Your task to perform on an android device: turn off smart reply in the gmail app Image 0: 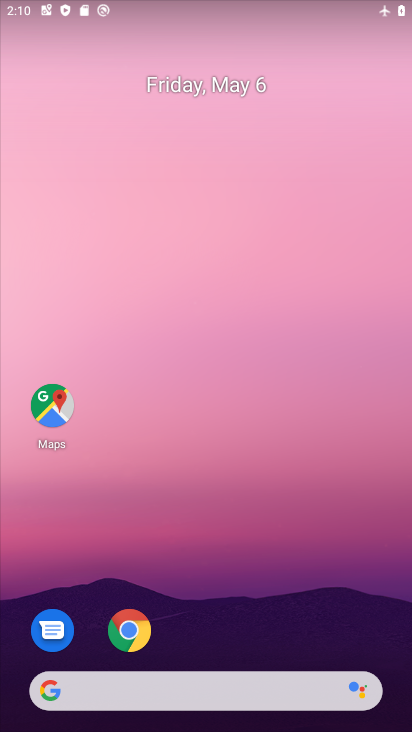
Step 0: drag from (224, 675) to (214, 83)
Your task to perform on an android device: turn off smart reply in the gmail app Image 1: 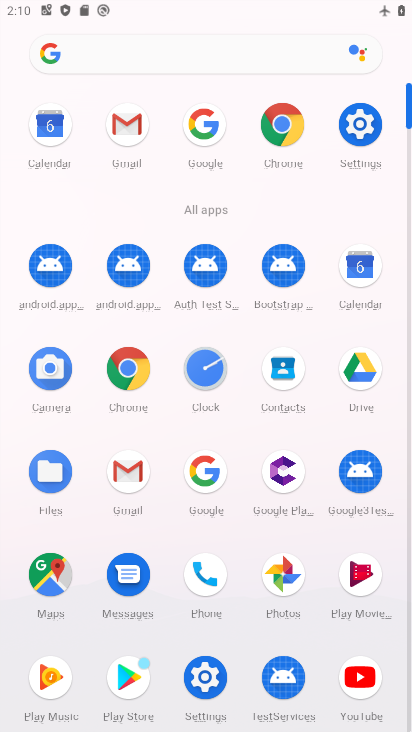
Step 1: click (118, 473)
Your task to perform on an android device: turn off smart reply in the gmail app Image 2: 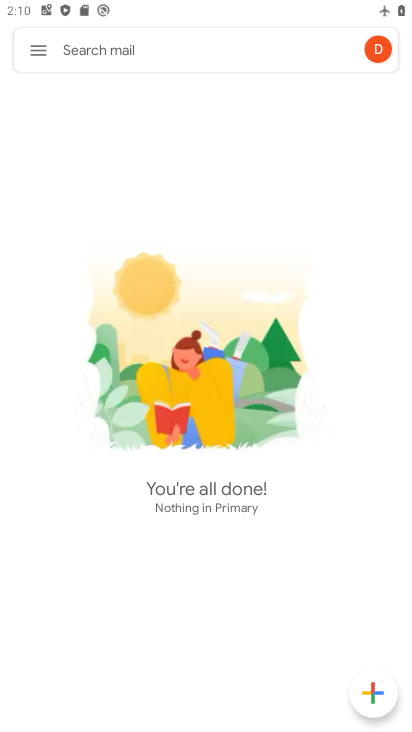
Step 2: click (31, 57)
Your task to perform on an android device: turn off smart reply in the gmail app Image 3: 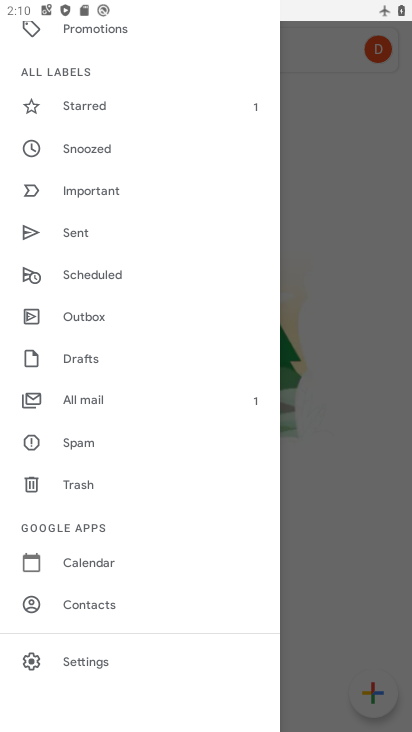
Step 3: click (104, 671)
Your task to perform on an android device: turn off smart reply in the gmail app Image 4: 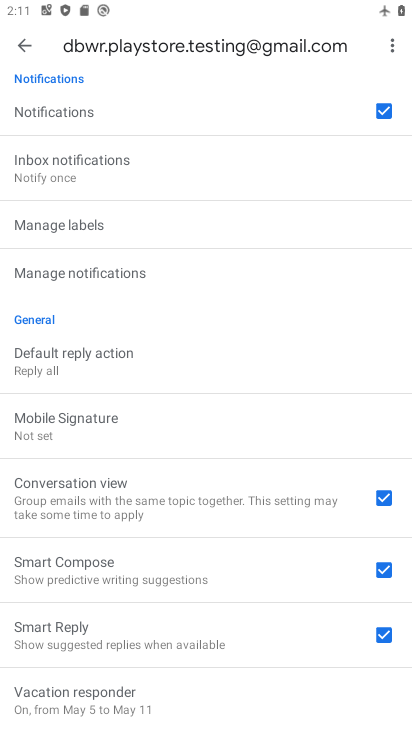
Step 4: click (386, 634)
Your task to perform on an android device: turn off smart reply in the gmail app Image 5: 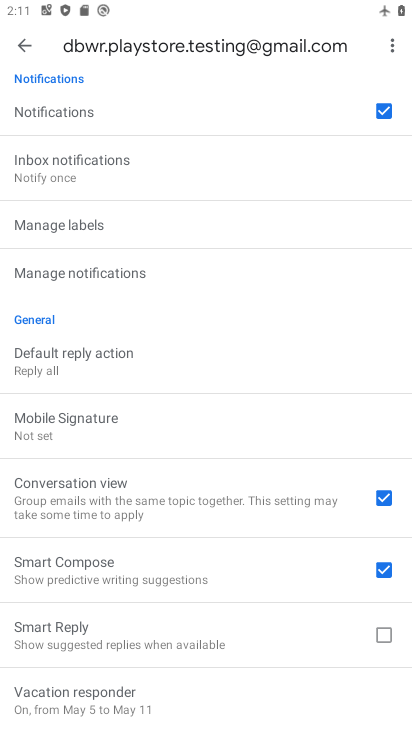
Step 5: task complete